Your task to perform on an android device: Open maps Image 0: 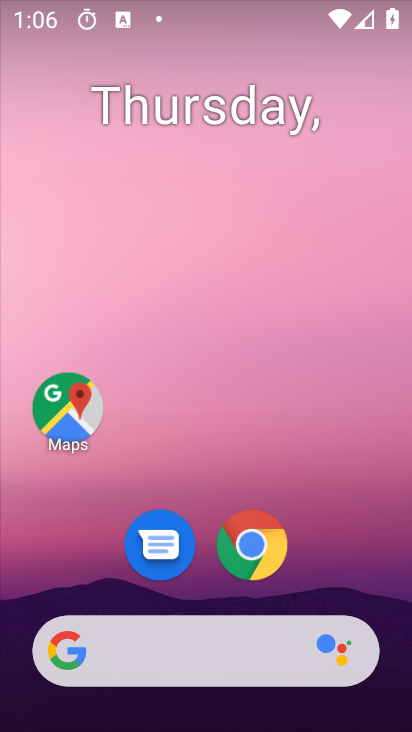
Step 0: drag from (166, 682) to (186, 79)
Your task to perform on an android device: Open maps Image 1: 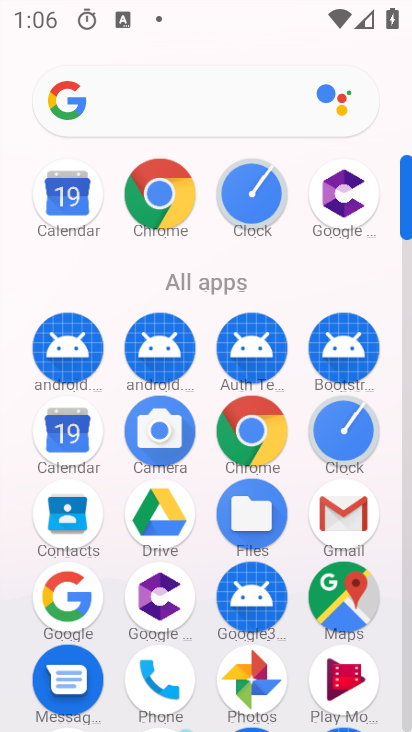
Step 1: click (351, 599)
Your task to perform on an android device: Open maps Image 2: 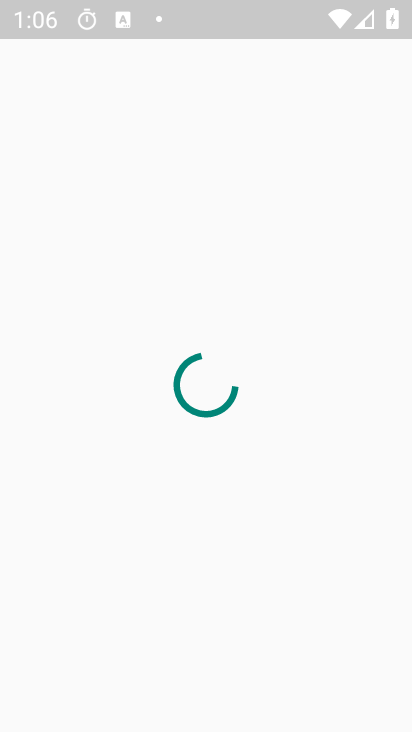
Step 2: task complete